Your task to perform on an android device: turn vacation reply on in the gmail app Image 0: 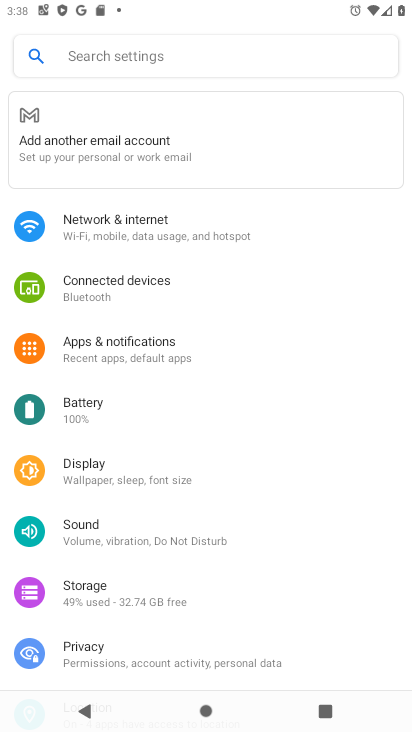
Step 0: press home button
Your task to perform on an android device: turn vacation reply on in the gmail app Image 1: 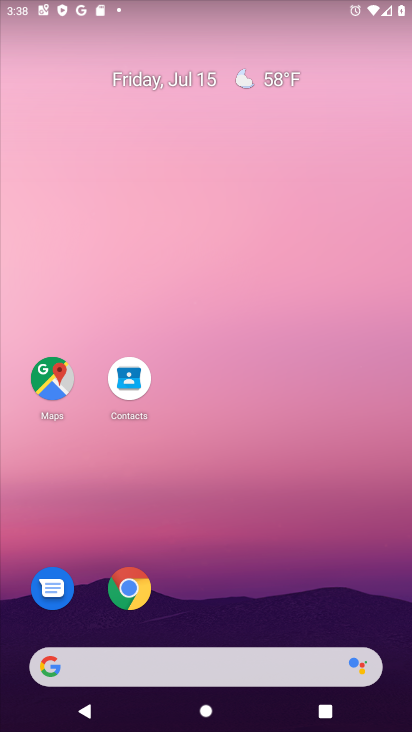
Step 1: drag from (274, 630) to (229, 136)
Your task to perform on an android device: turn vacation reply on in the gmail app Image 2: 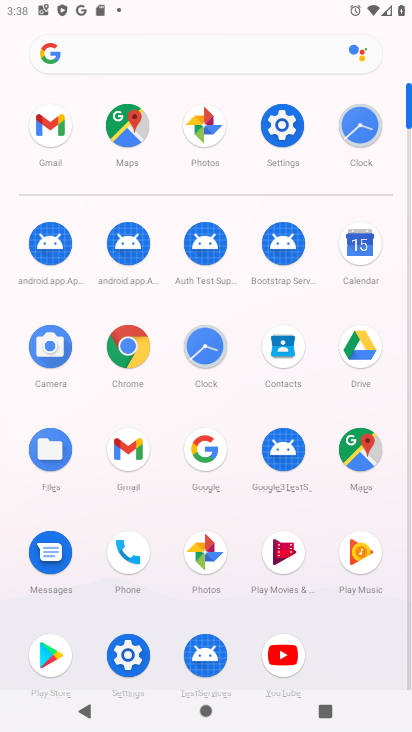
Step 2: click (53, 135)
Your task to perform on an android device: turn vacation reply on in the gmail app Image 3: 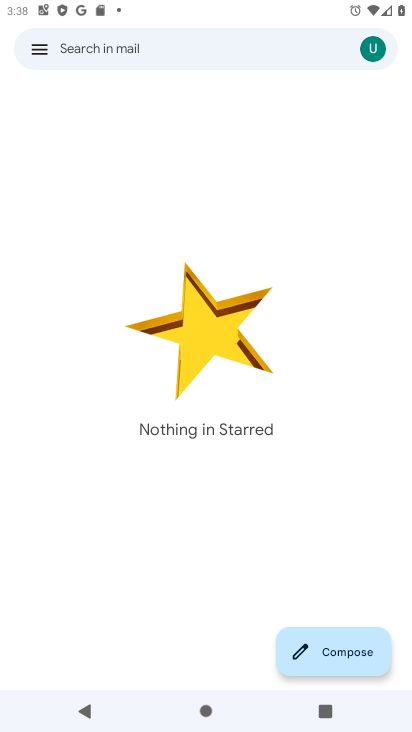
Step 3: click (45, 55)
Your task to perform on an android device: turn vacation reply on in the gmail app Image 4: 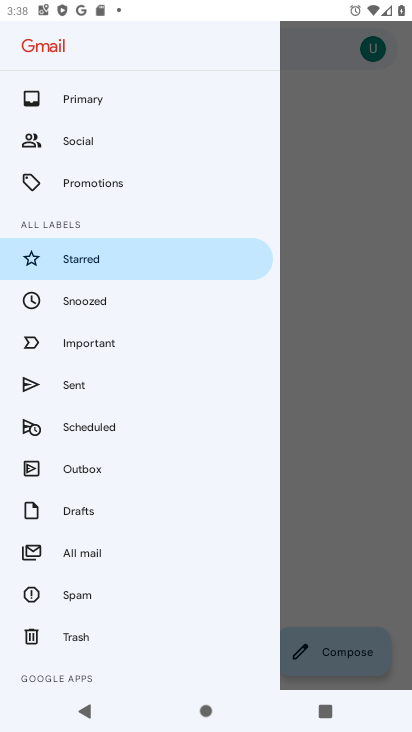
Step 4: drag from (67, 617) to (78, 220)
Your task to perform on an android device: turn vacation reply on in the gmail app Image 5: 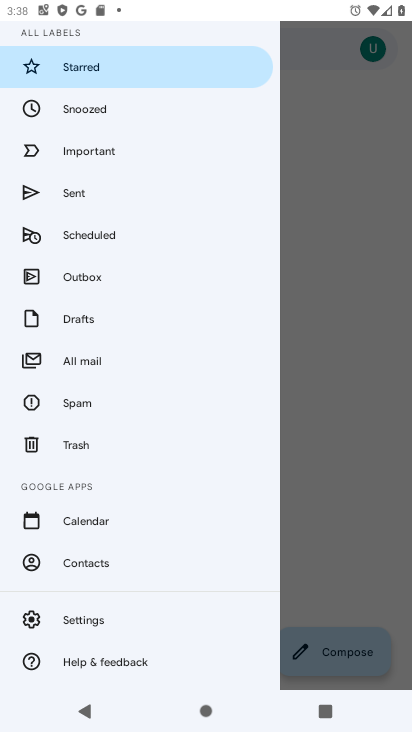
Step 5: click (78, 634)
Your task to perform on an android device: turn vacation reply on in the gmail app Image 6: 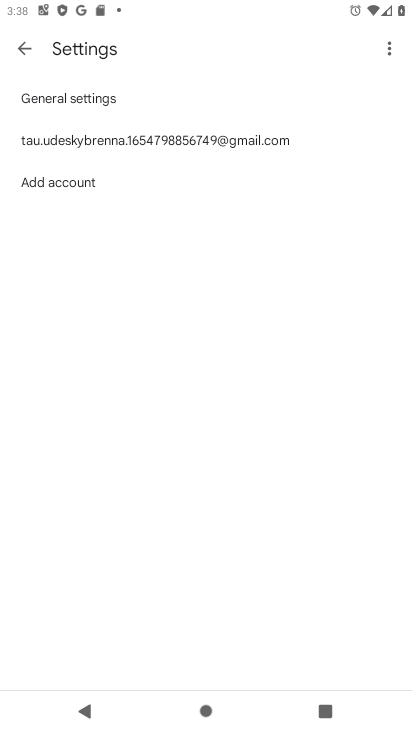
Step 6: click (260, 148)
Your task to perform on an android device: turn vacation reply on in the gmail app Image 7: 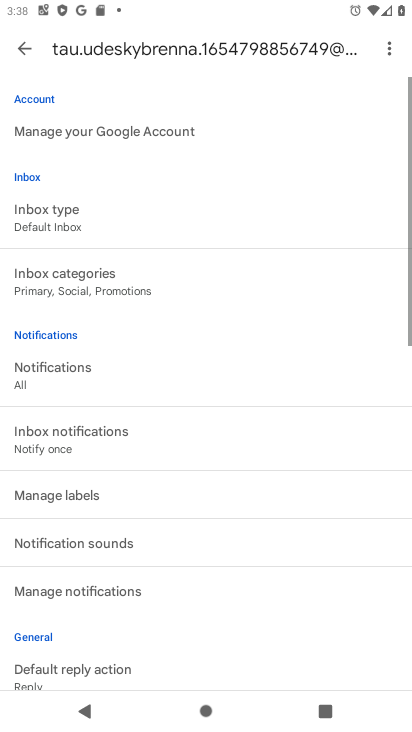
Step 7: drag from (171, 643) to (184, 195)
Your task to perform on an android device: turn vacation reply on in the gmail app Image 8: 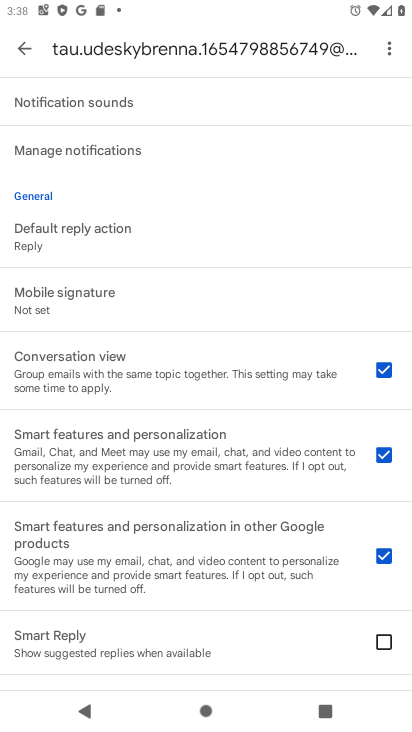
Step 8: drag from (152, 596) to (181, 191)
Your task to perform on an android device: turn vacation reply on in the gmail app Image 9: 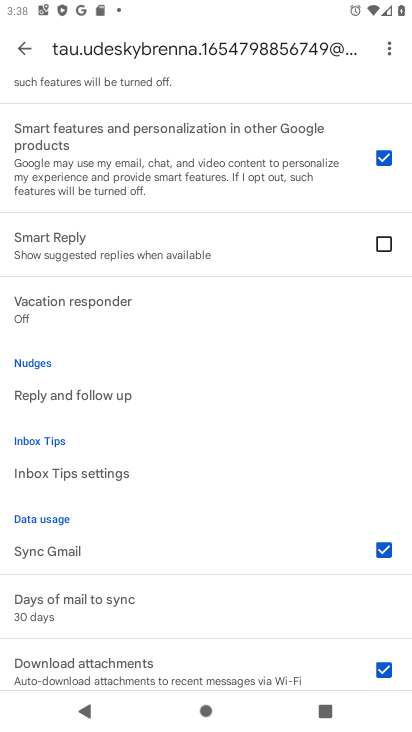
Step 9: click (110, 302)
Your task to perform on an android device: turn vacation reply on in the gmail app Image 10: 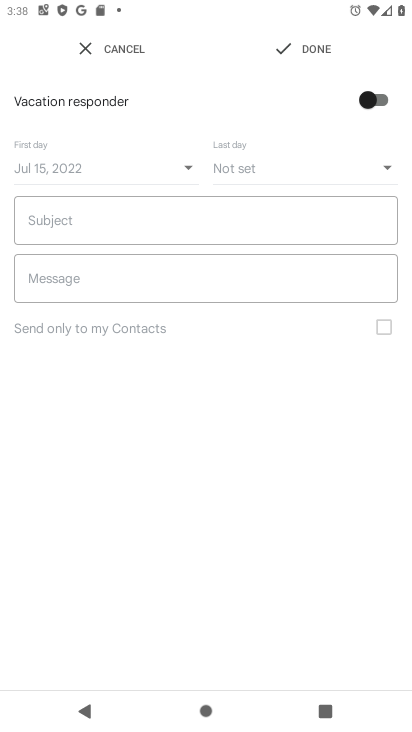
Step 10: click (315, 52)
Your task to perform on an android device: turn vacation reply on in the gmail app Image 11: 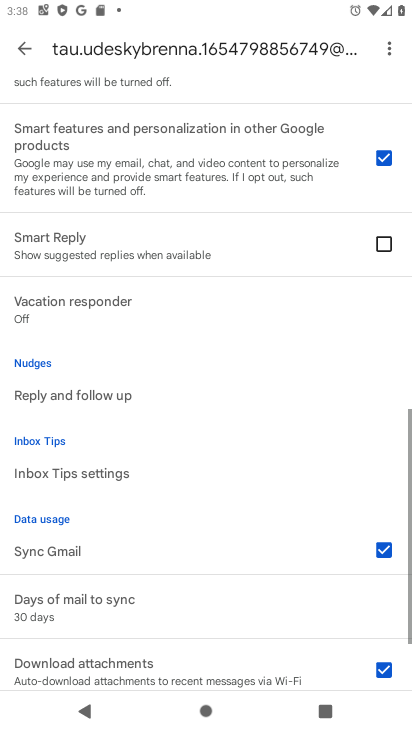
Step 11: task complete